Your task to perform on an android device: Search for the best selling book on Amazon. Image 0: 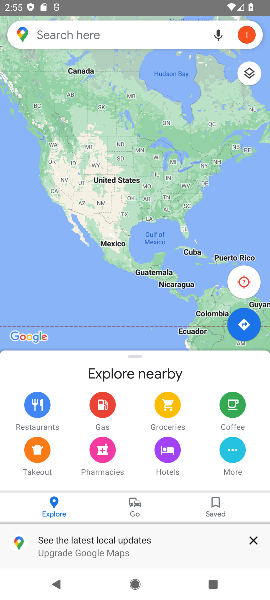
Step 0: press home button
Your task to perform on an android device: Search for the best selling book on Amazon. Image 1: 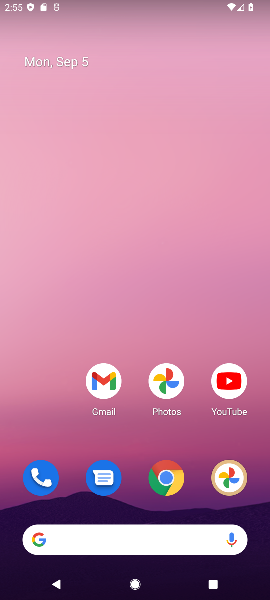
Step 1: click (161, 477)
Your task to perform on an android device: Search for the best selling book on Amazon. Image 2: 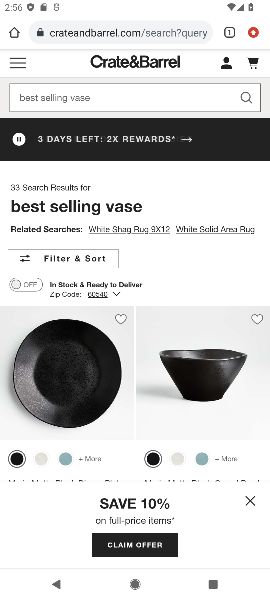
Step 2: click (157, 31)
Your task to perform on an android device: Search for the best selling book on Amazon. Image 3: 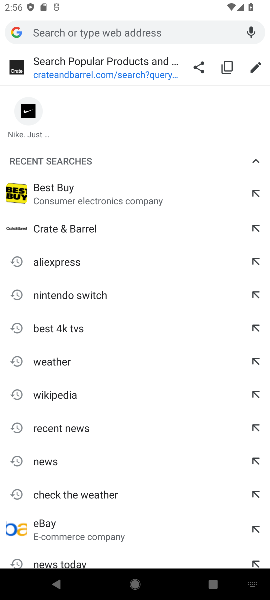
Step 3: type "amzon"
Your task to perform on an android device: Search for the best selling book on Amazon. Image 4: 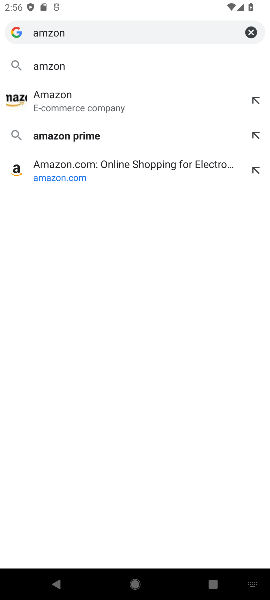
Step 4: click (97, 107)
Your task to perform on an android device: Search for the best selling book on Amazon. Image 5: 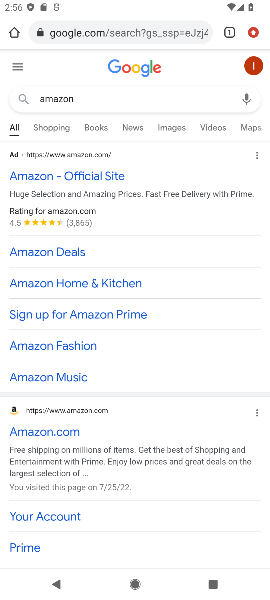
Step 5: click (63, 429)
Your task to perform on an android device: Search for the best selling book on Amazon. Image 6: 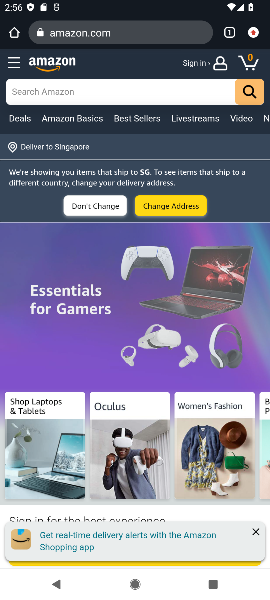
Step 6: click (159, 94)
Your task to perform on an android device: Search for the best selling book on Amazon. Image 7: 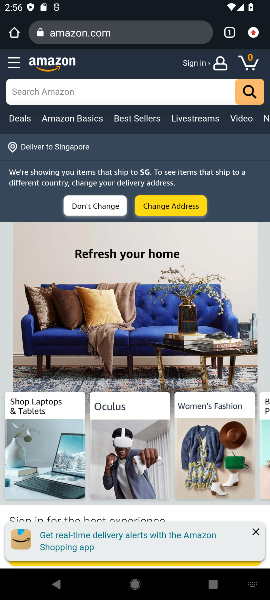
Step 7: type "best selling book"
Your task to perform on an android device: Search for the best selling book on Amazon. Image 8: 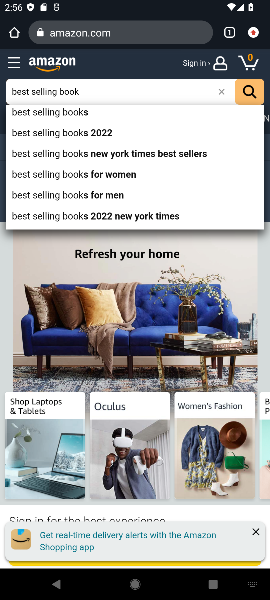
Step 8: click (104, 118)
Your task to perform on an android device: Search for the best selling book on Amazon. Image 9: 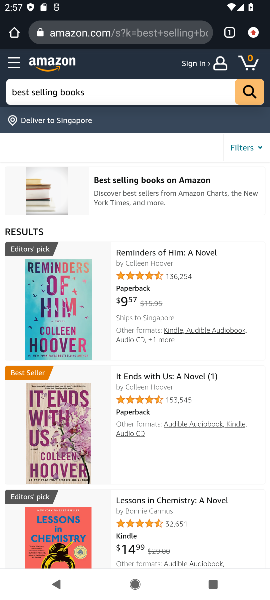
Step 9: task complete